Your task to perform on an android device: Go to wifi settings Image 0: 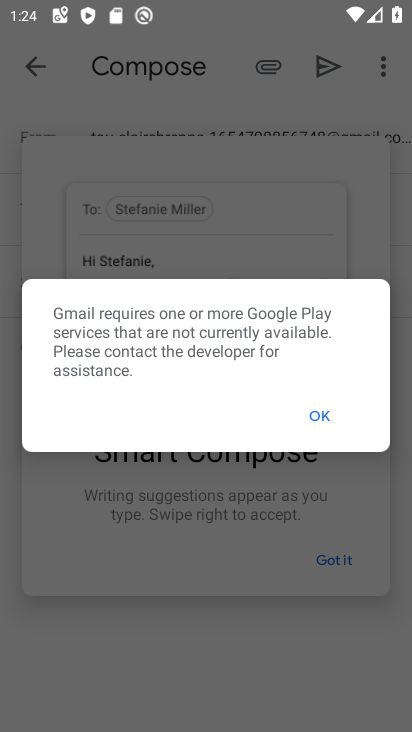
Step 0: press home button
Your task to perform on an android device: Go to wifi settings Image 1: 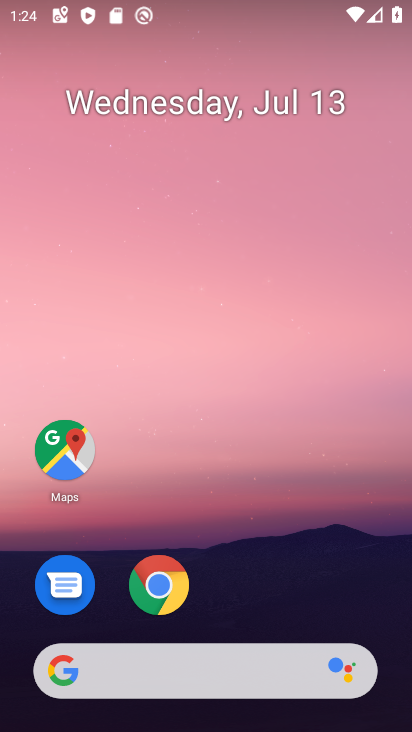
Step 1: drag from (175, 682) to (319, 190)
Your task to perform on an android device: Go to wifi settings Image 2: 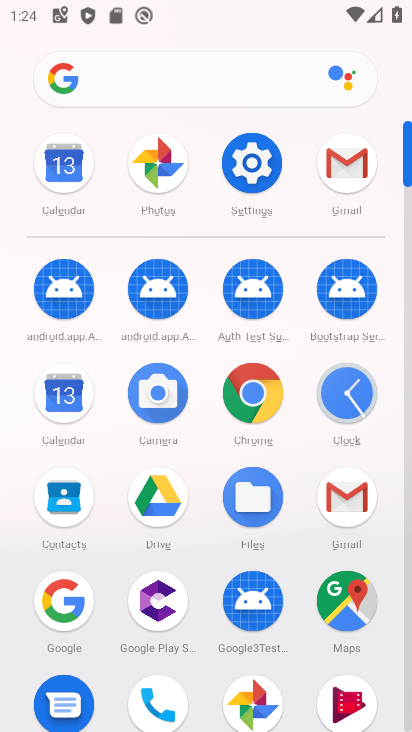
Step 2: click (239, 173)
Your task to perform on an android device: Go to wifi settings Image 3: 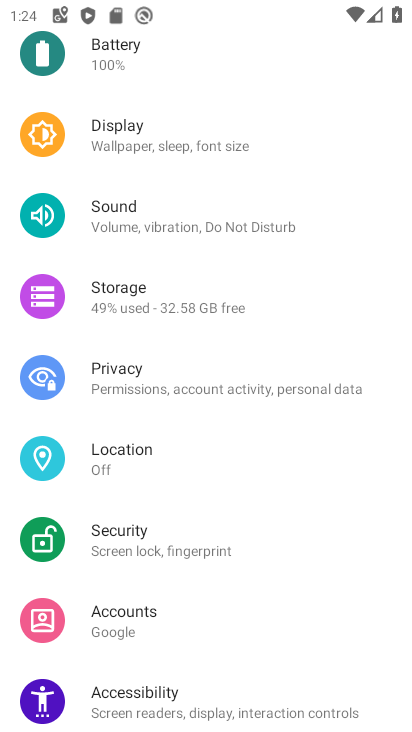
Step 3: drag from (281, 90) to (210, 622)
Your task to perform on an android device: Go to wifi settings Image 4: 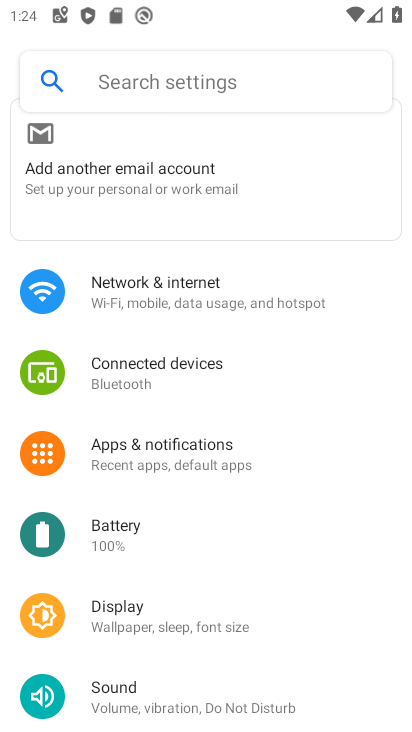
Step 4: click (210, 296)
Your task to perform on an android device: Go to wifi settings Image 5: 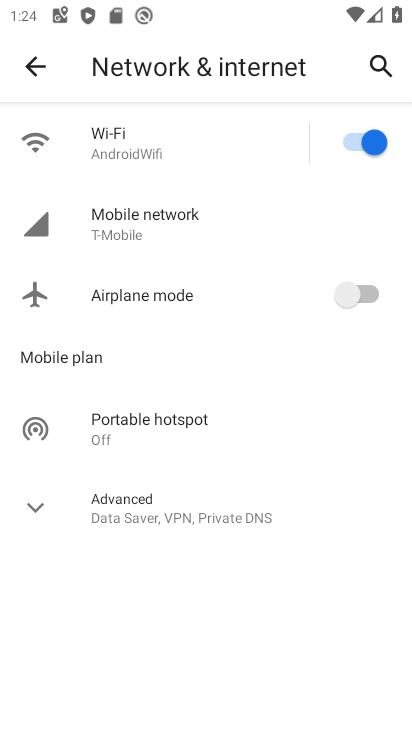
Step 5: click (116, 160)
Your task to perform on an android device: Go to wifi settings Image 6: 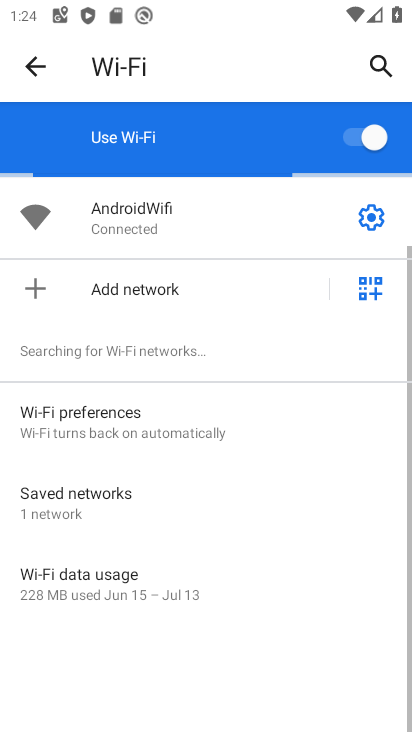
Step 6: task complete